Your task to perform on an android device: turn off improve location accuracy Image 0: 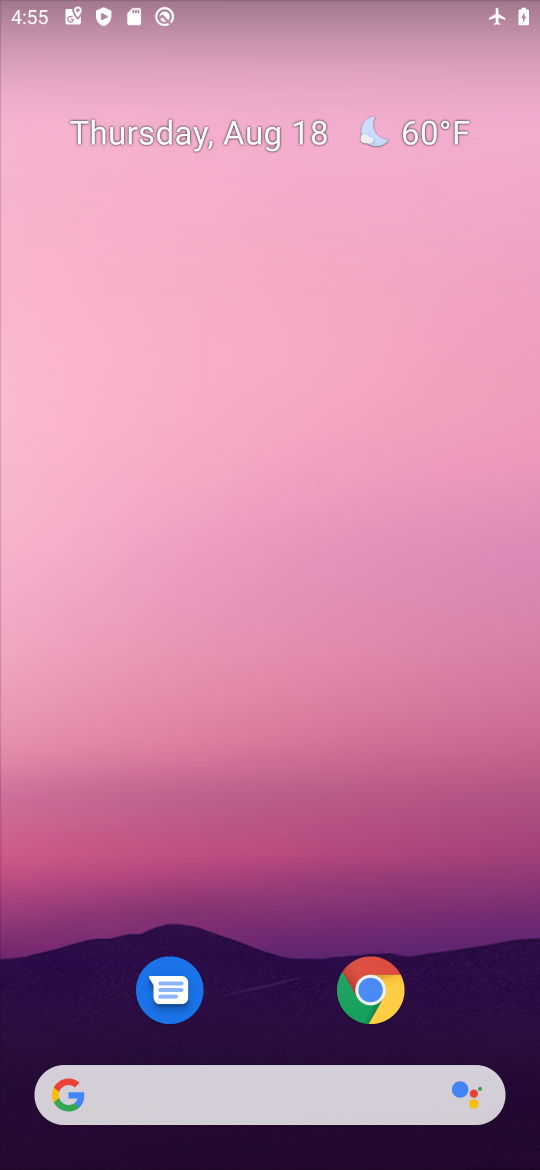
Step 0: drag from (309, 841) to (388, 126)
Your task to perform on an android device: turn off improve location accuracy Image 1: 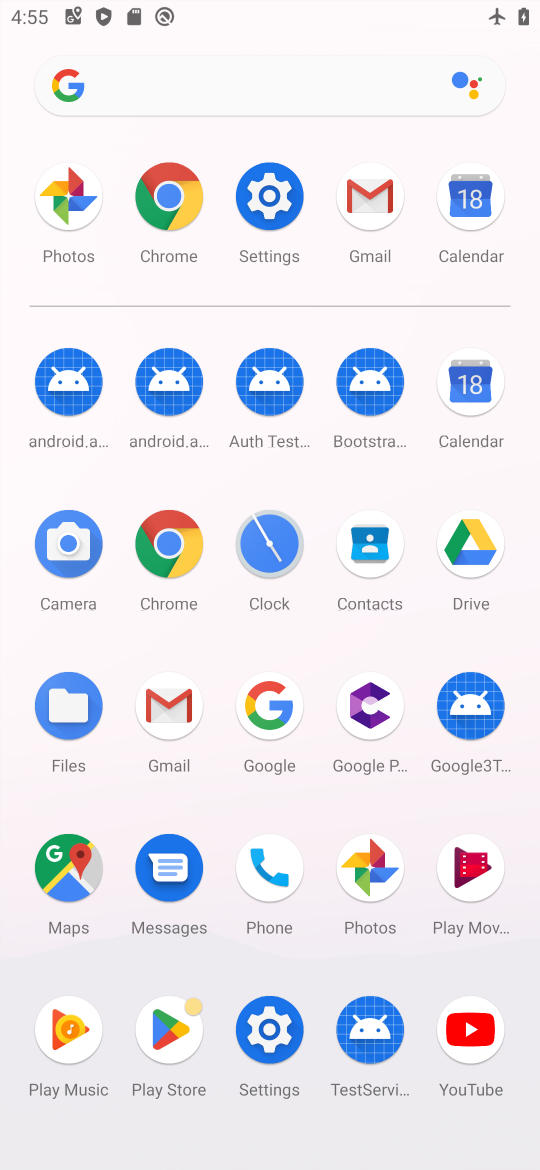
Step 1: click (283, 1026)
Your task to perform on an android device: turn off improve location accuracy Image 2: 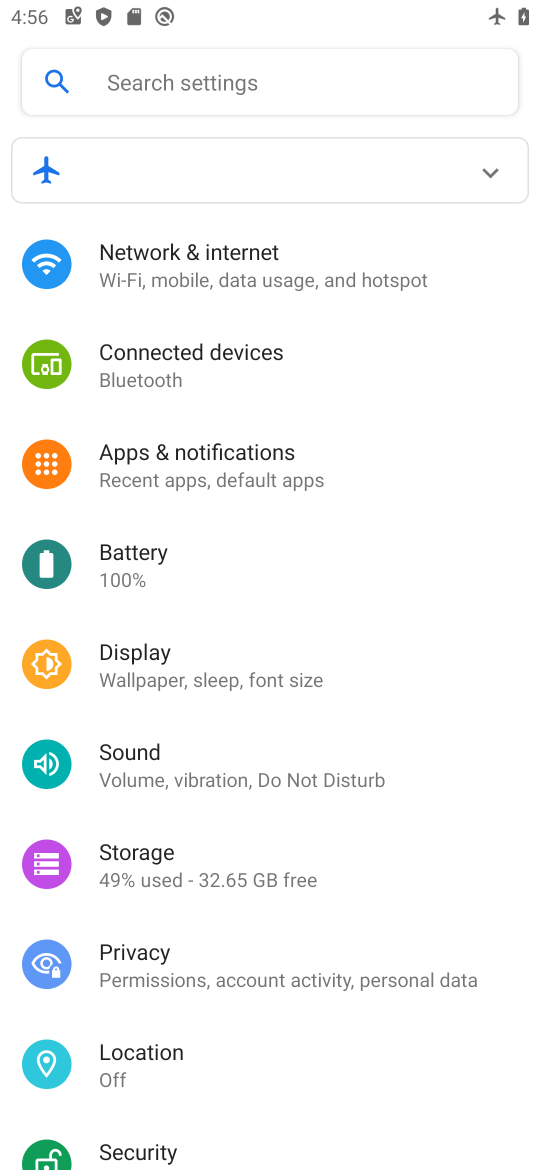
Step 2: drag from (192, 968) to (238, 411)
Your task to perform on an android device: turn off improve location accuracy Image 3: 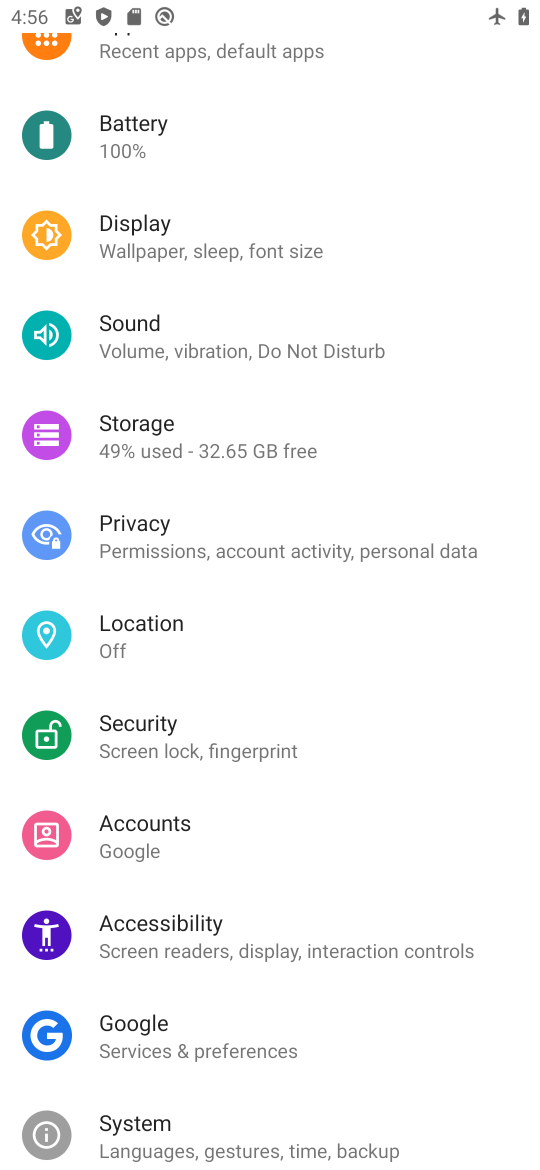
Step 3: click (125, 652)
Your task to perform on an android device: turn off improve location accuracy Image 4: 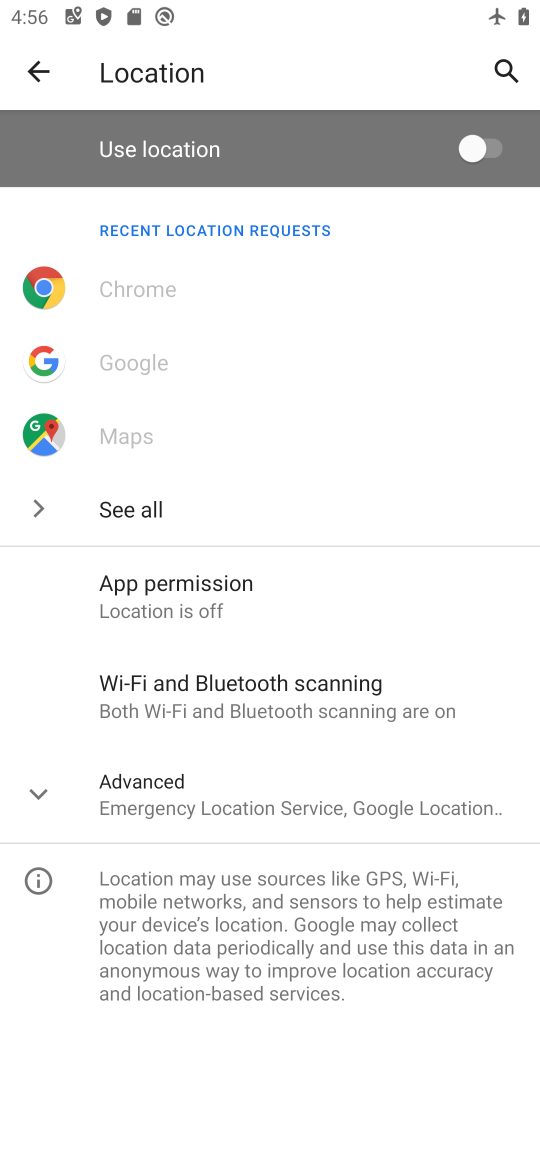
Step 4: click (190, 794)
Your task to perform on an android device: turn off improve location accuracy Image 5: 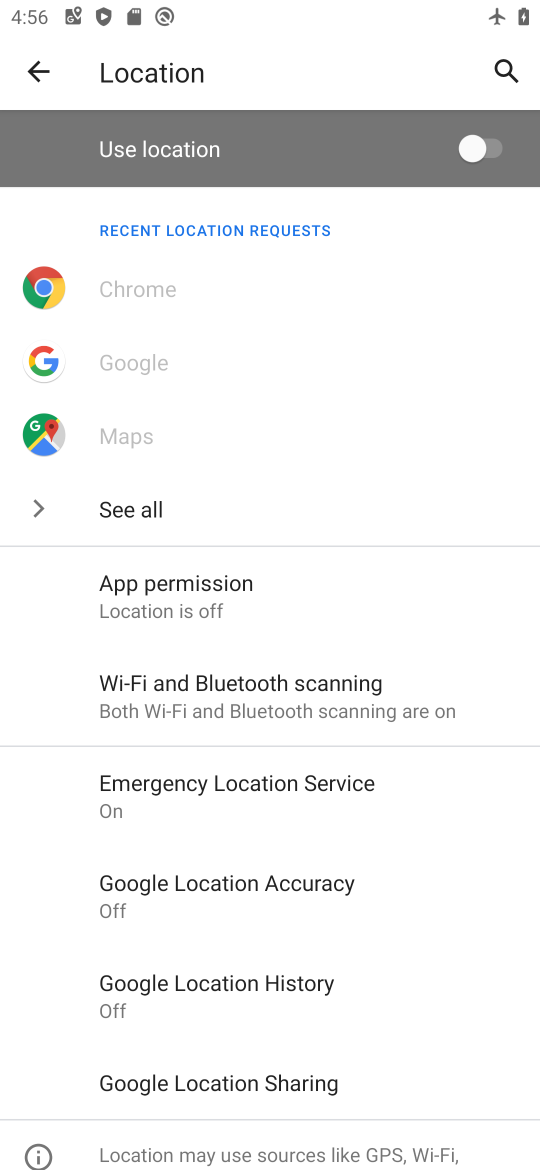
Step 5: click (313, 893)
Your task to perform on an android device: turn off improve location accuracy Image 6: 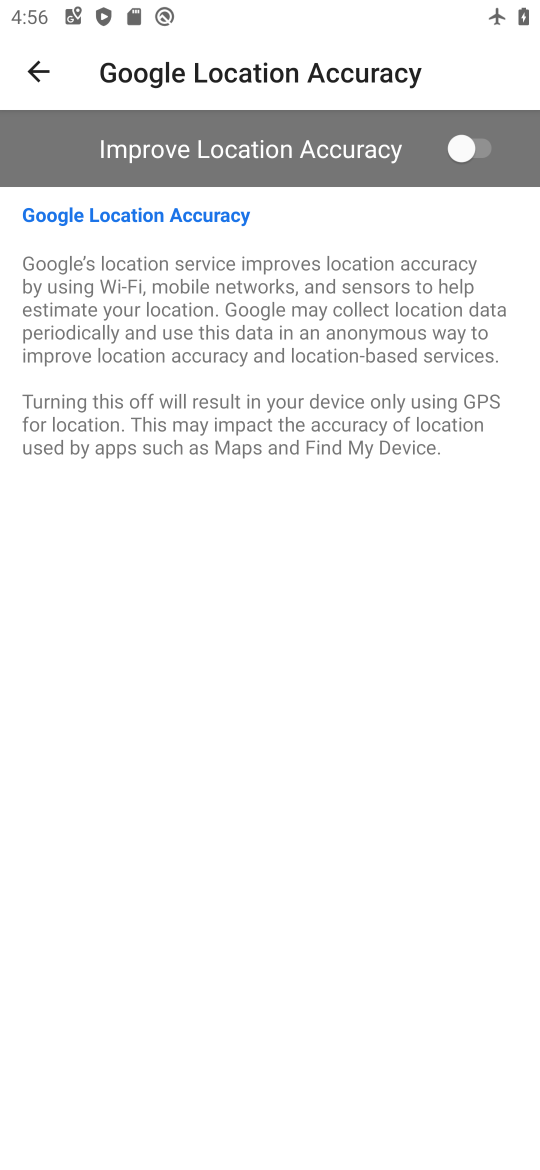
Step 6: task complete